Your task to perform on an android device: change alarm snooze length Image 0: 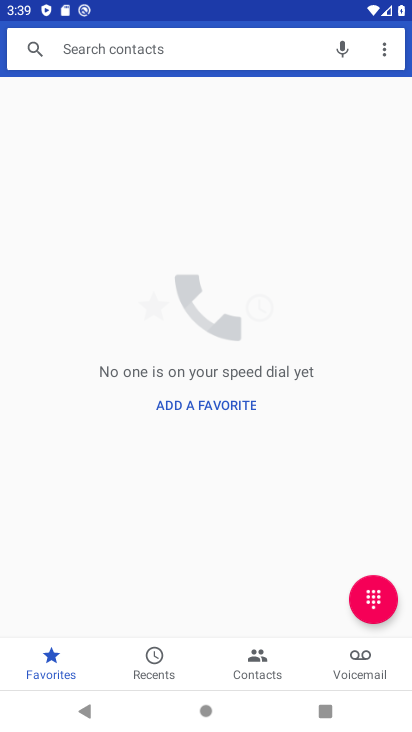
Step 0: press home button
Your task to perform on an android device: change alarm snooze length Image 1: 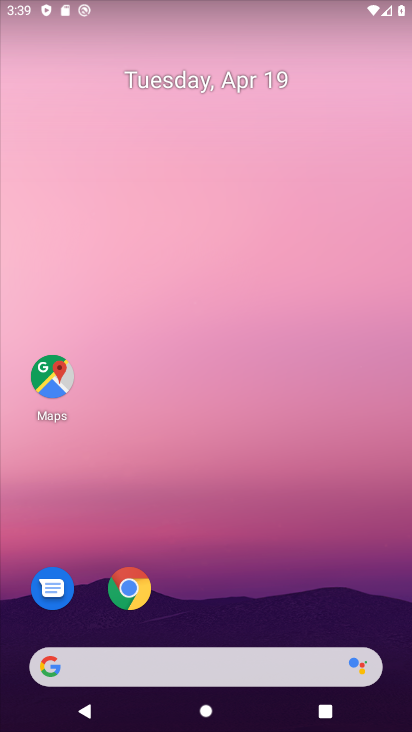
Step 1: drag from (220, 394) to (197, 59)
Your task to perform on an android device: change alarm snooze length Image 2: 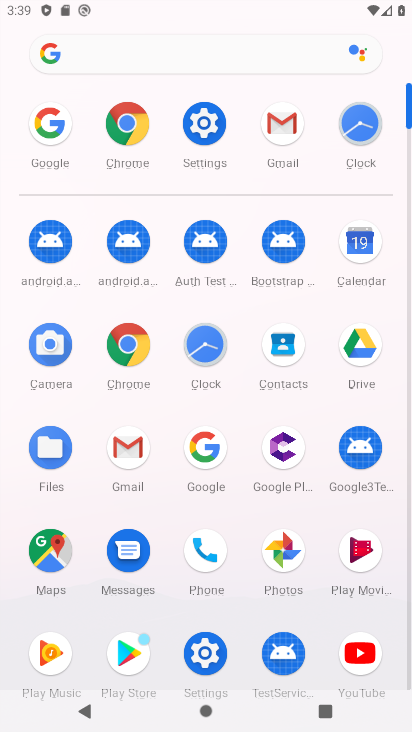
Step 2: click (367, 121)
Your task to perform on an android device: change alarm snooze length Image 3: 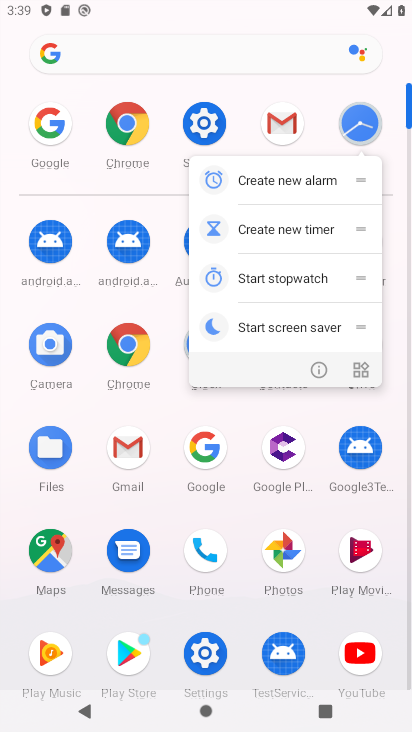
Step 3: click (352, 123)
Your task to perform on an android device: change alarm snooze length Image 4: 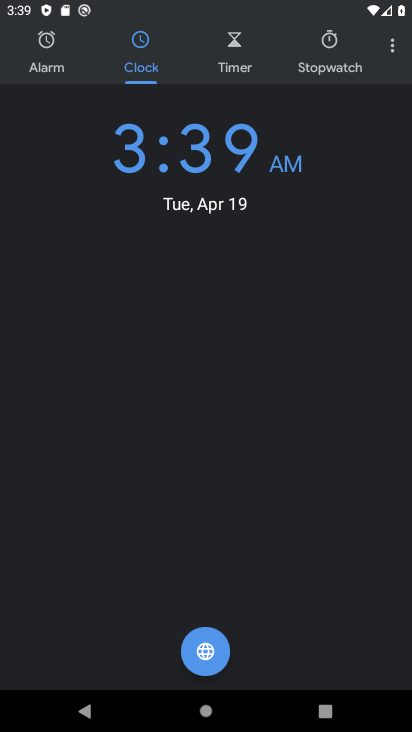
Step 4: click (383, 44)
Your task to perform on an android device: change alarm snooze length Image 5: 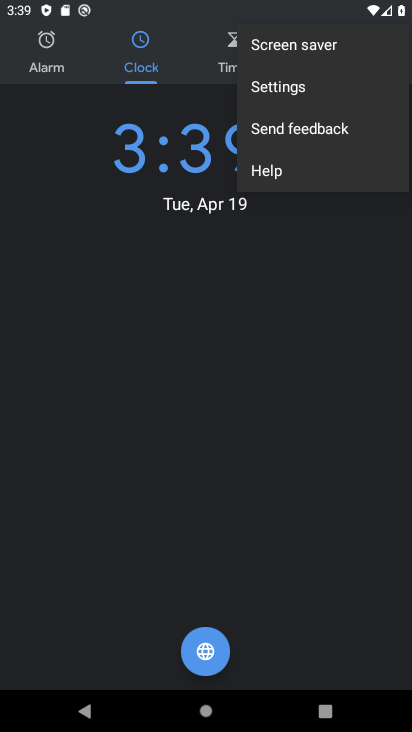
Step 5: click (297, 84)
Your task to perform on an android device: change alarm snooze length Image 6: 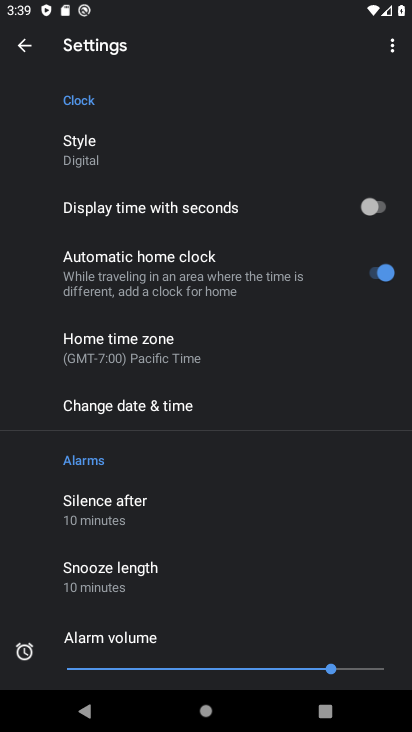
Step 6: click (161, 565)
Your task to perform on an android device: change alarm snooze length Image 7: 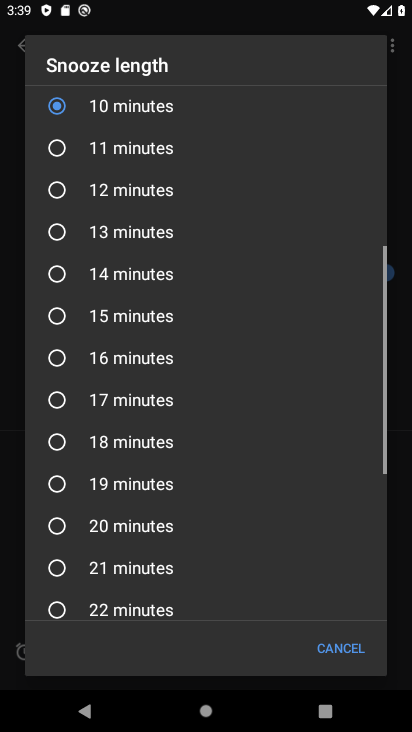
Step 7: click (135, 148)
Your task to perform on an android device: change alarm snooze length Image 8: 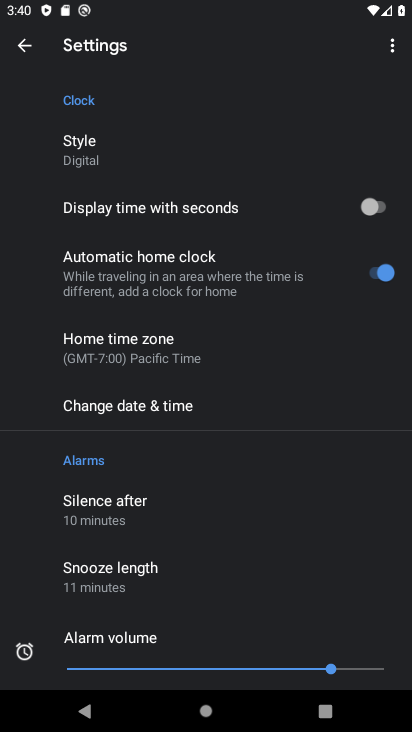
Step 8: task complete